Your task to perform on an android device: add a contact Image 0: 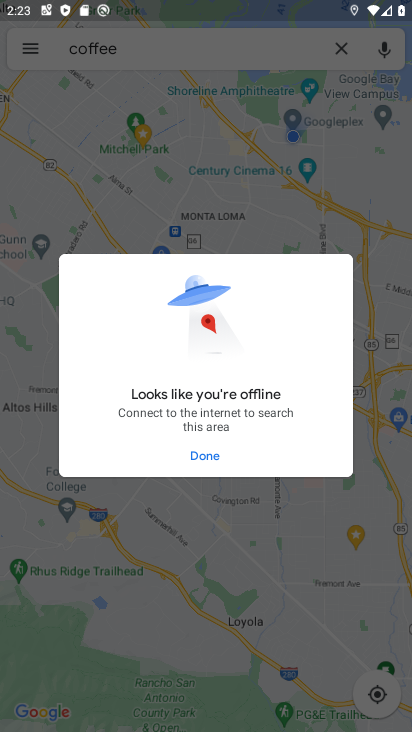
Step 0: press home button
Your task to perform on an android device: add a contact Image 1: 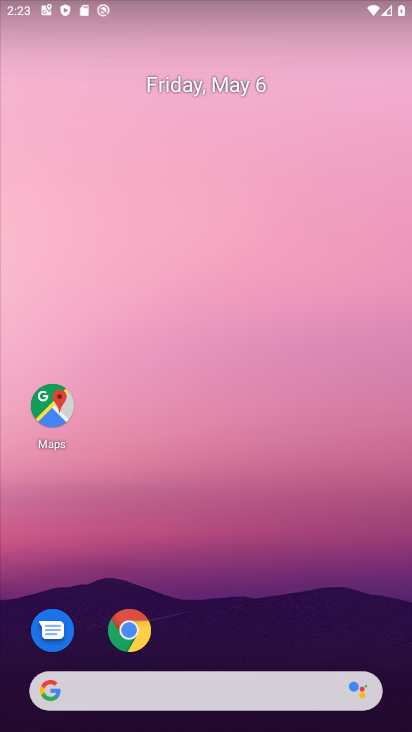
Step 1: drag from (170, 692) to (160, 142)
Your task to perform on an android device: add a contact Image 2: 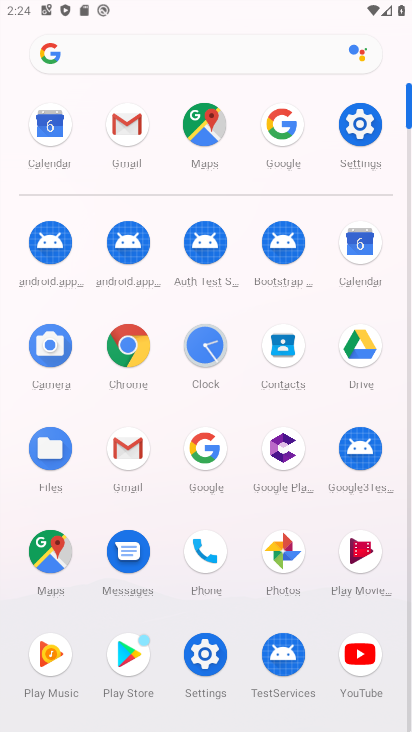
Step 2: click (279, 345)
Your task to perform on an android device: add a contact Image 3: 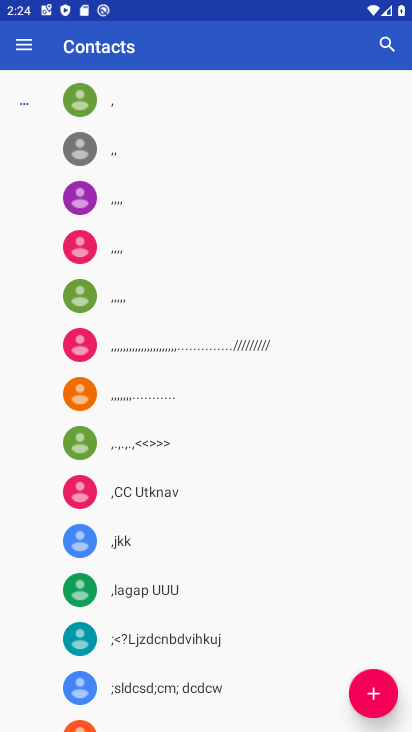
Step 3: click (366, 686)
Your task to perform on an android device: add a contact Image 4: 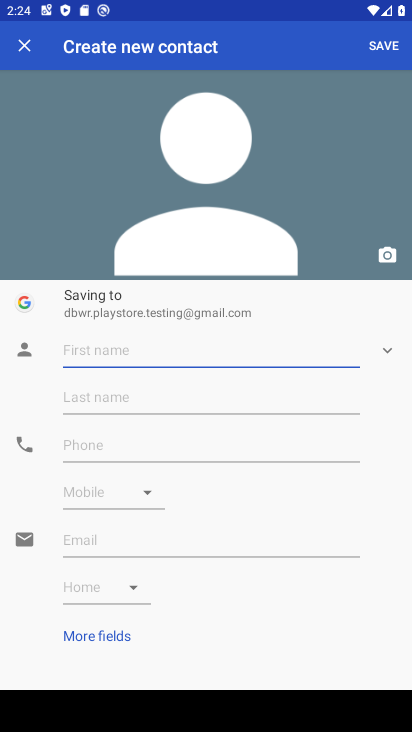
Step 4: type "cxvxcv"
Your task to perform on an android device: add a contact Image 5: 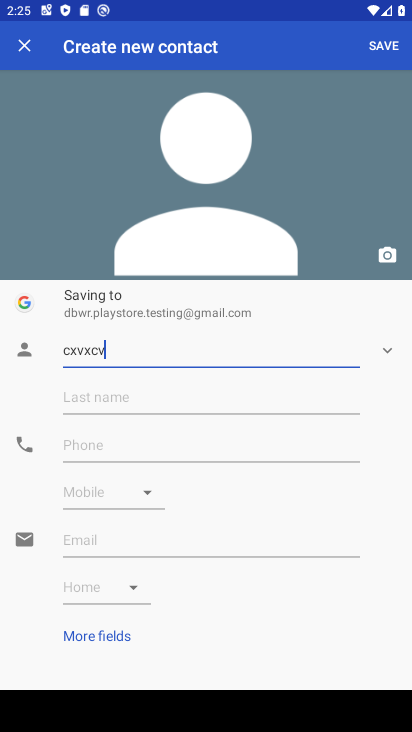
Step 5: click (162, 445)
Your task to perform on an android device: add a contact Image 6: 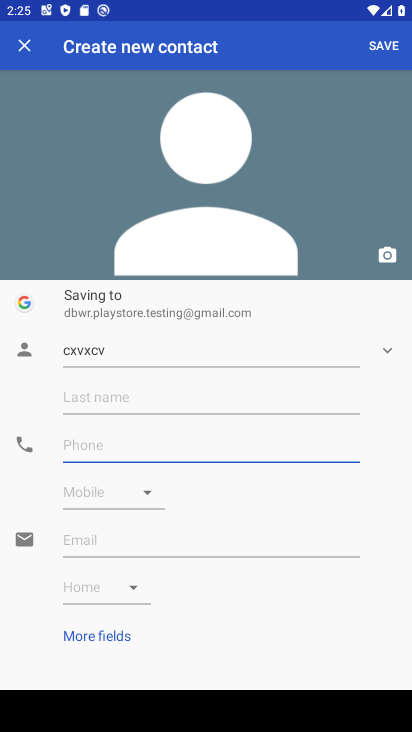
Step 6: type "235453"
Your task to perform on an android device: add a contact Image 7: 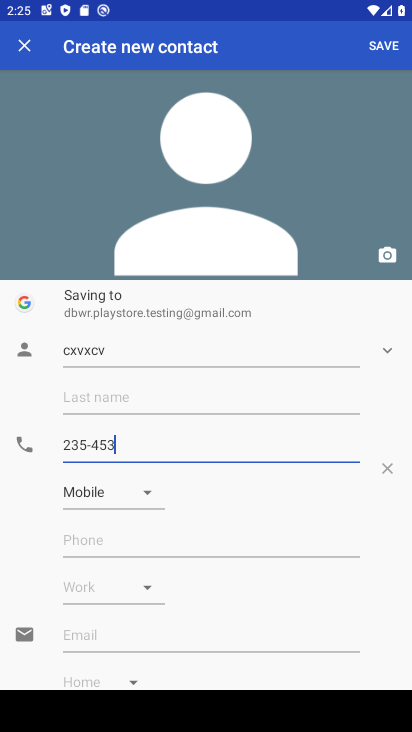
Step 7: click (388, 42)
Your task to perform on an android device: add a contact Image 8: 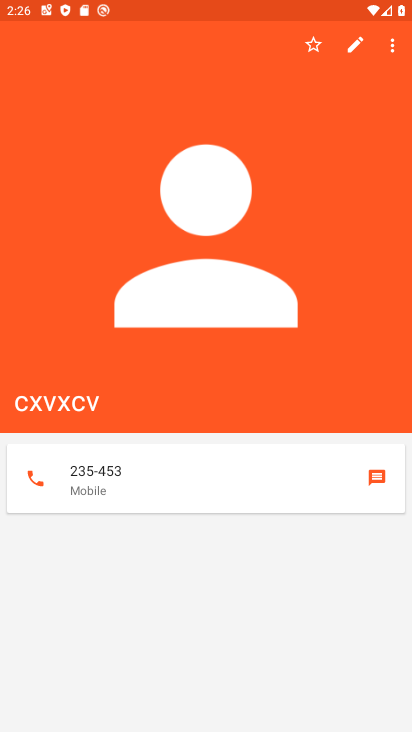
Step 8: task complete